Your task to perform on an android device: turn on priority inbox in the gmail app Image 0: 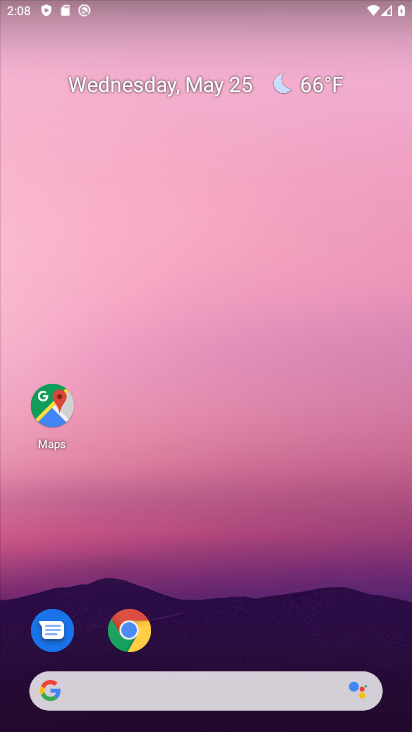
Step 0: press home button
Your task to perform on an android device: turn on priority inbox in the gmail app Image 1: 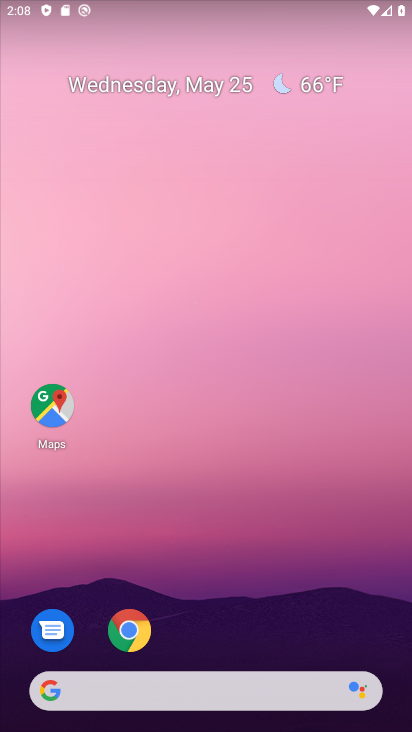
Step 1: drag from (213, 654) to (212, 163)
Your task to perform on an android device: turn on priority inbox in the gmail app Image 2: 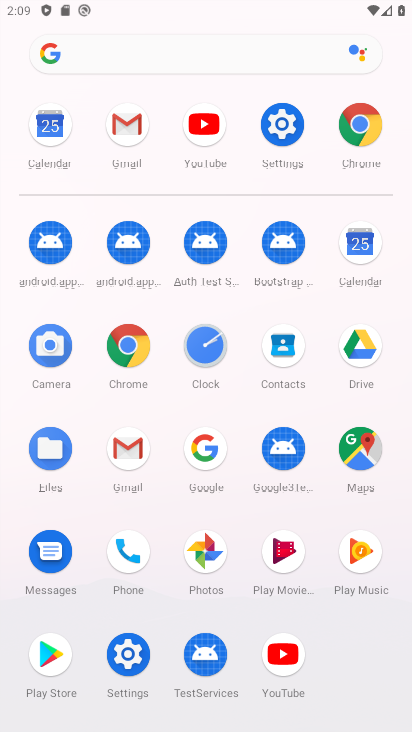
Step 2: click (121, 445)
Your task to perform on an android device: turn on priority inbox in the gmail app Image 3: 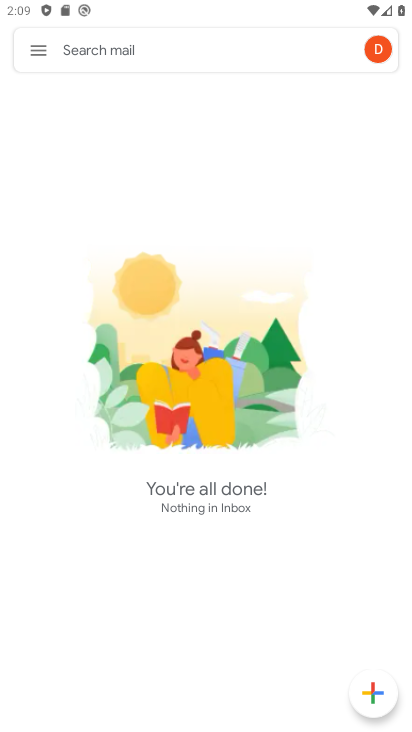
Step 3: click (32, 52)
Your task to perform on an android device: turn on priority inbox in the gmail app Image 4: 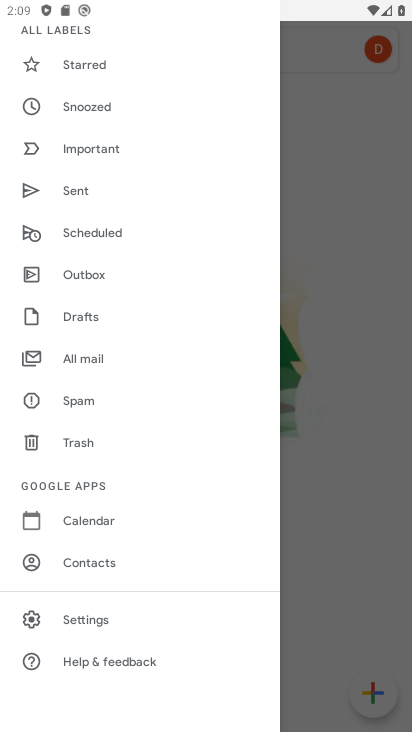
Step 4: click (112, 613)
Your task to perform on an android device: turn on priority inbox in the gmail app Image 5: 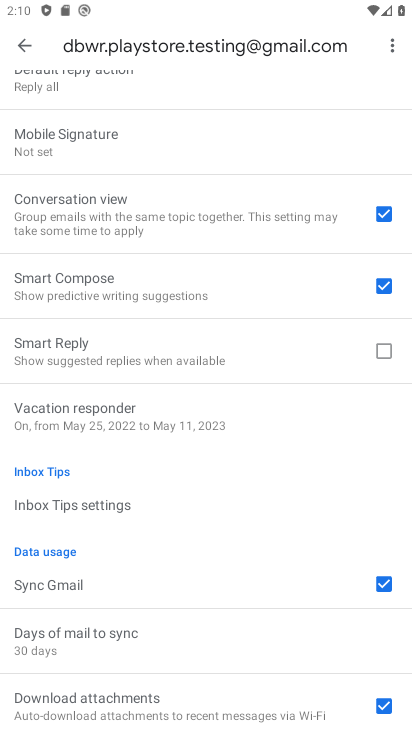
Step 5: drag from (115, 156) to (157, 628)
Your task to perform on an android device: turn on priority inbox in the gmail app Image 6: 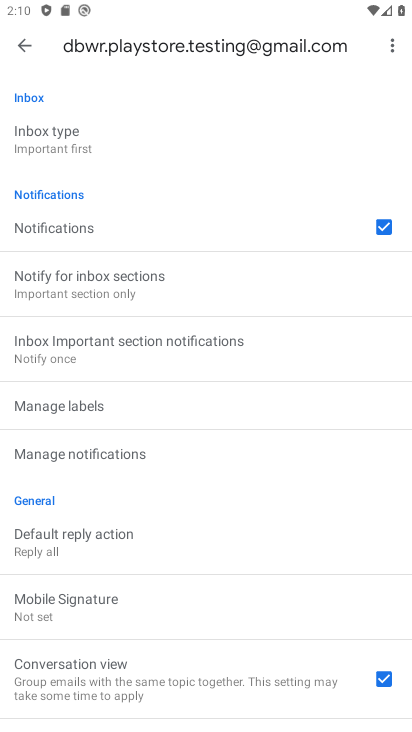
Step 6: drag from (98, 124) to (176, 727)
Your task to perform on an android device: turn on priority inbox in the gmail app Image 7: 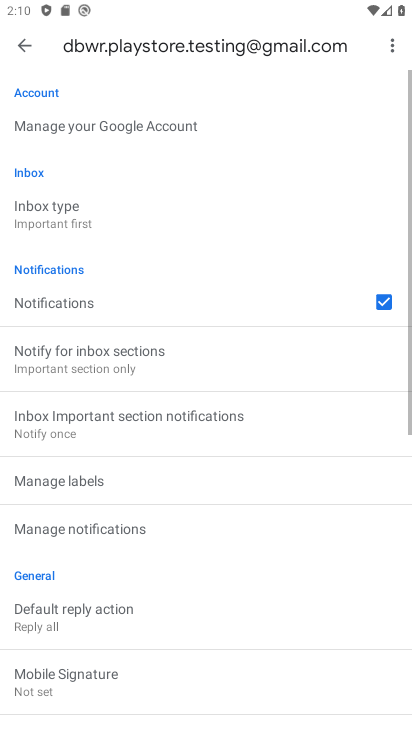
Step 7: click (101, 217)
Your task to perform on an android device: turn on priority inbox in the gmail app Image 8: 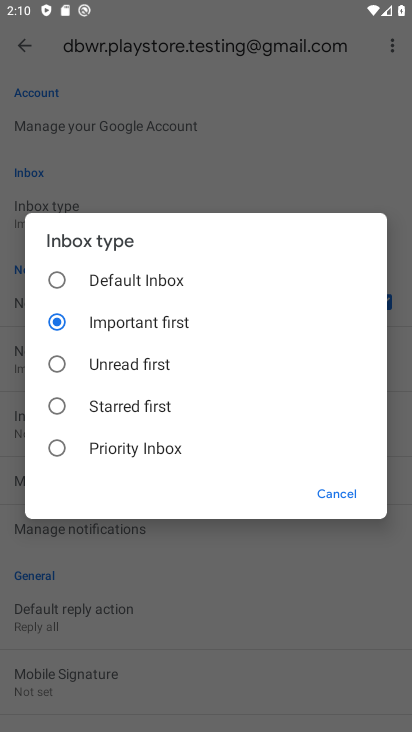
Step 8: click (67, 456)
Your task to perform on an android device: turn on priority inbox in the gmail app Image 9: 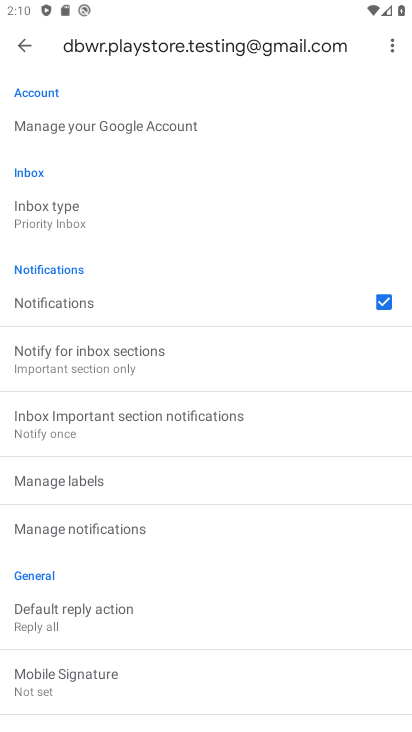
Step 9: task complete